Your task to perform on an android device: Open Chrome and go to the settings page Image 0: 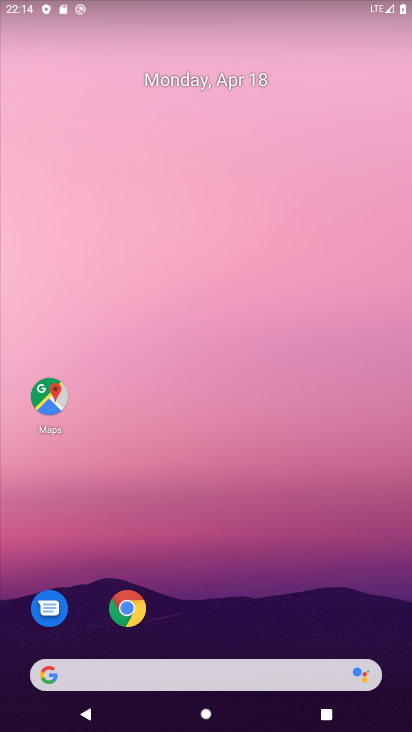
Step 0: click (132, 614)
Your task to perform on an android device: Open Chrome and go to the settings page Image 1: 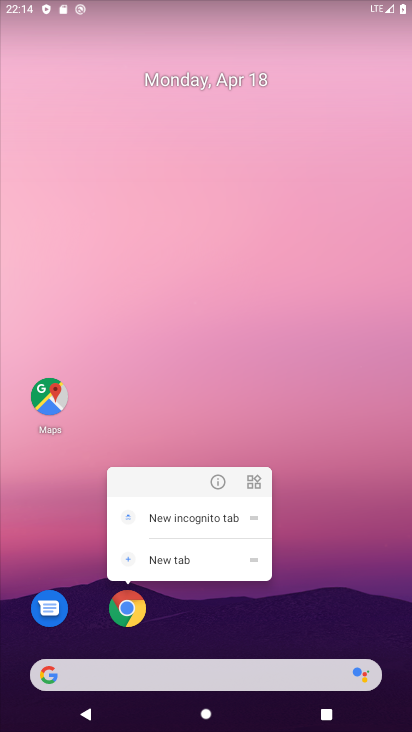
Step 1: click (131, 611)
Your task to perform on an android device: Open Chrome and go to the settings page Image 2: 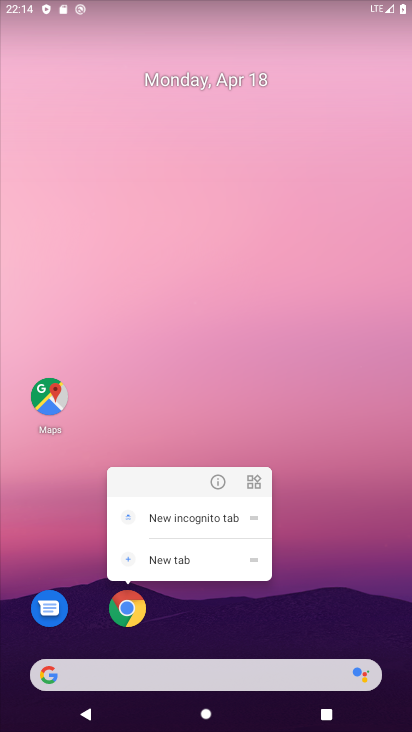
Step 2: click (127, 615)
Your task to perform on an android device: Open Chrome and go to the settings page Image 3: 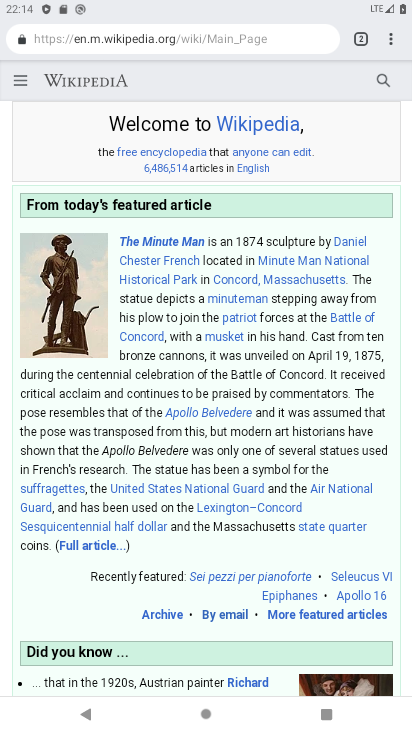
Step 3: click (390, 36)
Your task to perform on an android device: Open Chrome and go to the settings page Image 4: 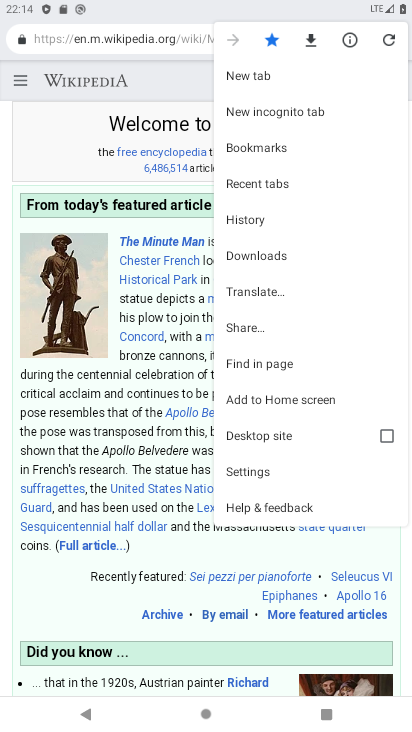
Step 4: click (266, 475)
Your task to perform on an android device: Open Chrome and go to the settings page Image 5: 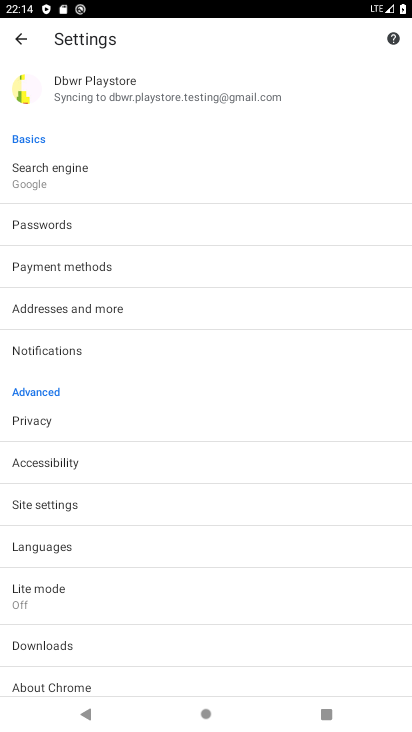
Step 5: task complete